Your task to perform on an android device: turn on javascript in the chrome app Image 0: 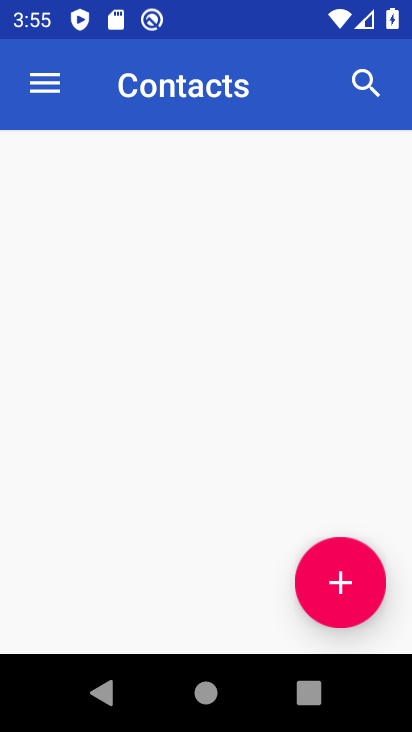
Step 0: drag from (342, 482) to (235, 66)
Your task to perform on an android device: turn on javascript in the chrome app Image 1: 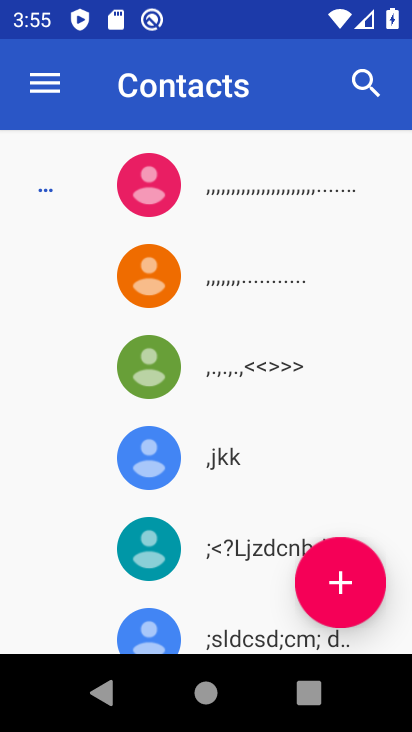
Step 1: press back button
Your task to perform on an android device: turn on javascript in the chrome app Image 2: 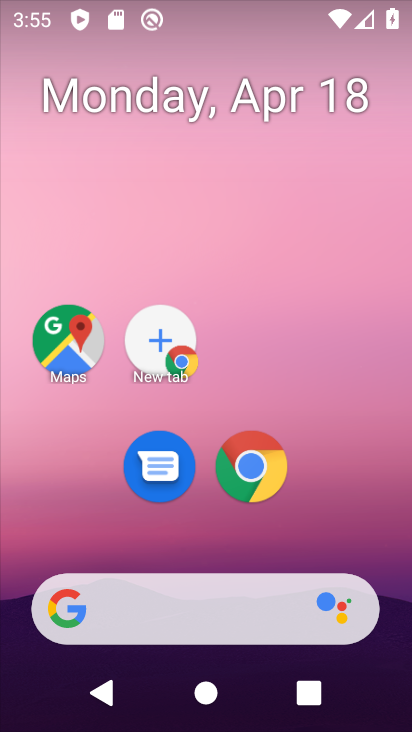
Step 2: drag from (377, 536) to (297, 97)
Your task to perform on an android device: turn on javascript in the chrome app Image 3: 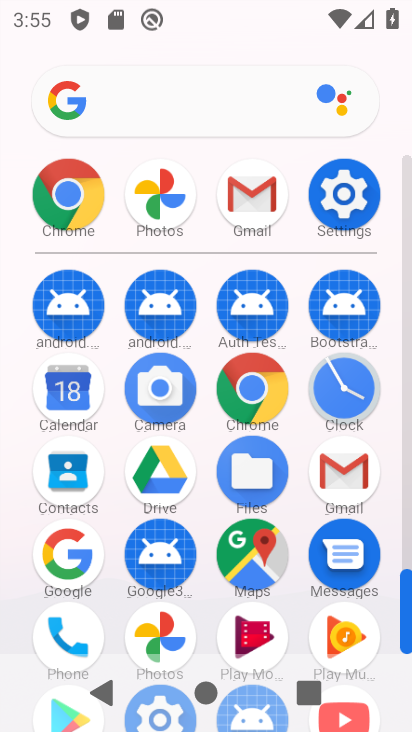
Step 3: drag from (17, 527) to (3, 261)
Your task to perform on an android device: turn on javascript in the chrome app Image 4: 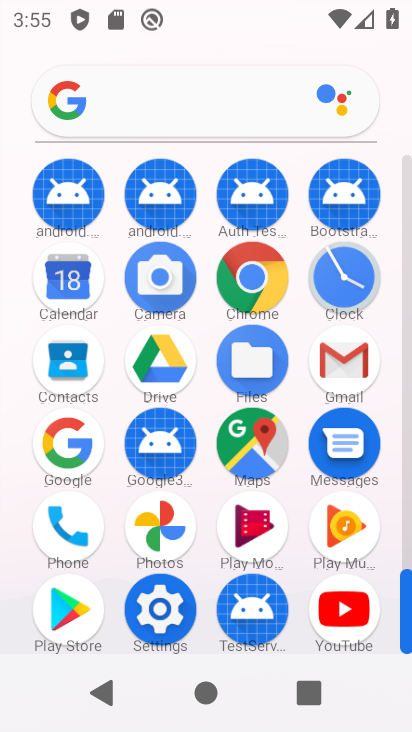
Step 4: click (244, 273)
Your task to perform on an android device: turn on javascript in the chrome app Image 5: 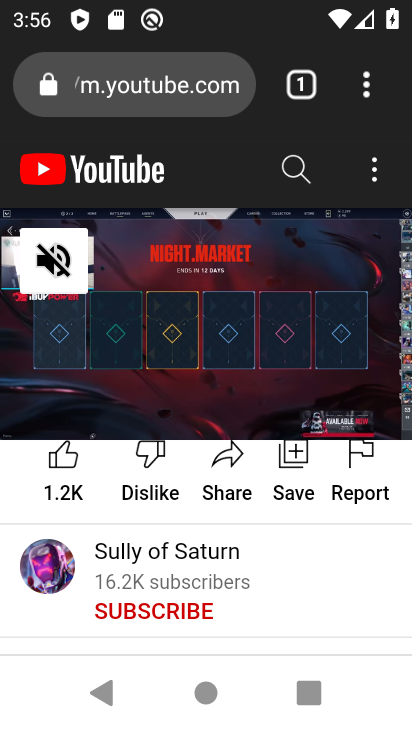
Step 5: drag from (367, 83) to (255, 522)
Your task to perform on an android device: turn on javascript in the chrome app Image 6: 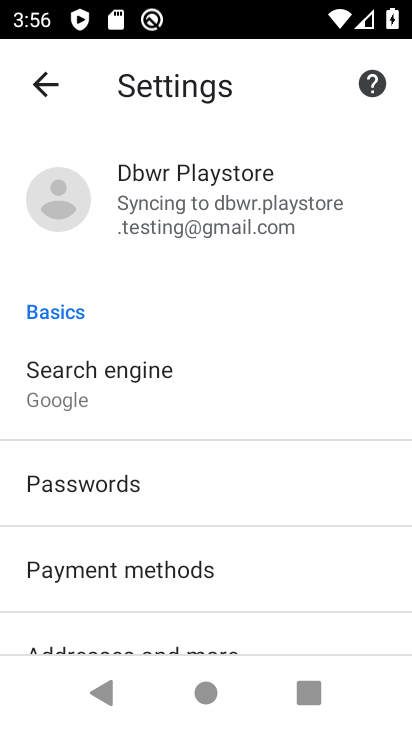
Step 6: drag from (229, 528) to (225, 219)
Your task to perform on an android device: turn on javascript in the chrome app Image 7: 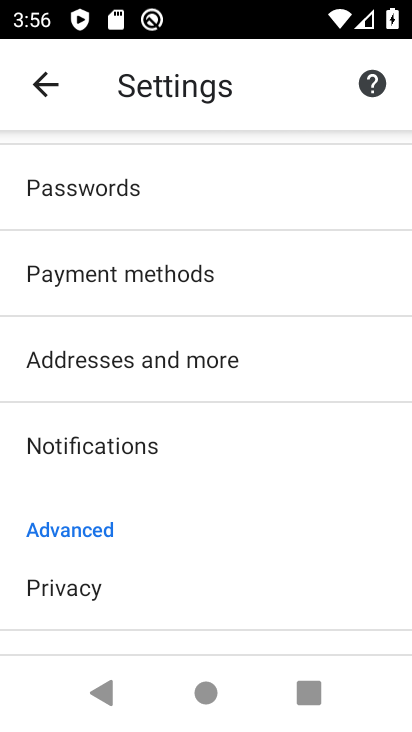
Step 7: drag from (235, 473) to (232, 150)
Your task to perform on an android device: turn on javascript in the chrome app Image 8: 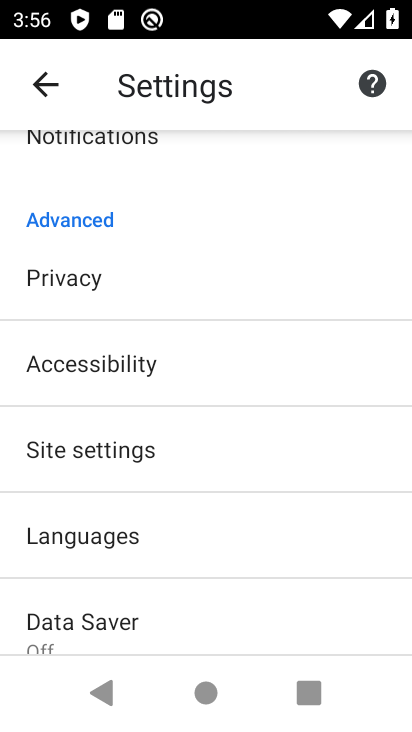
Step 8: drag from (272, 557) to (256, 207)
Your task to perform on an android device: turn on javascript in the chrome app Image 9: 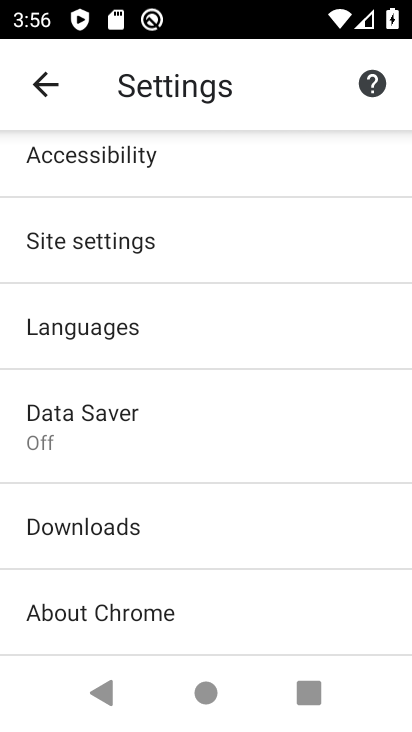
Step 9: drag from (220, 554) to (203, 159)
Your task to perform on an android device: turn on javascript in the chrome app Image 10: 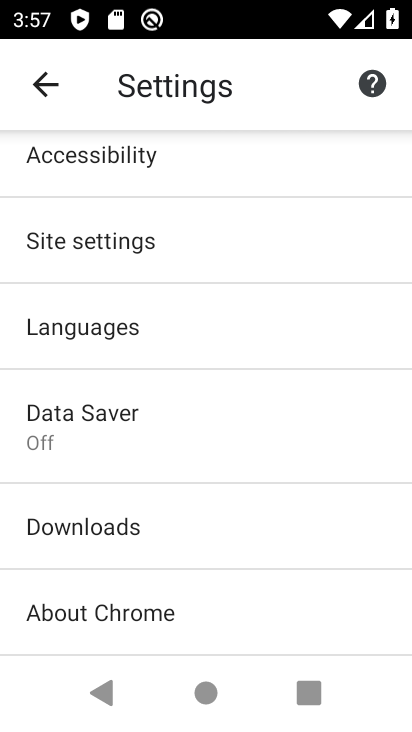
Step 10: click (161, 244)
Your task to perform on an android device: turn on javascript in the chrome app Image 11: 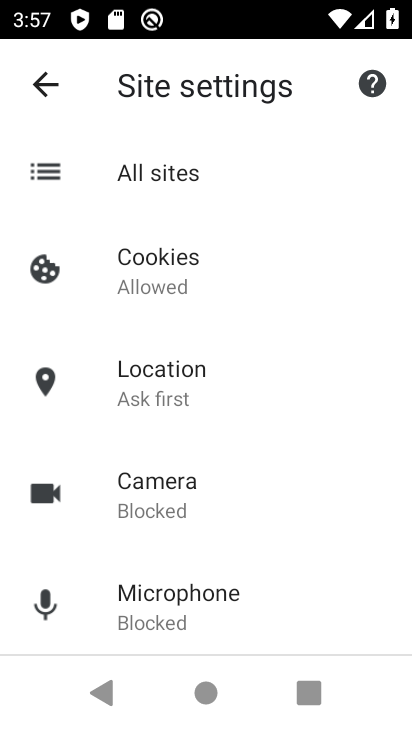
Step 11: drag from (219, 518) to (217, 143)
Your task to perform on an android device: turn on javascript in the chrome app Image 12: 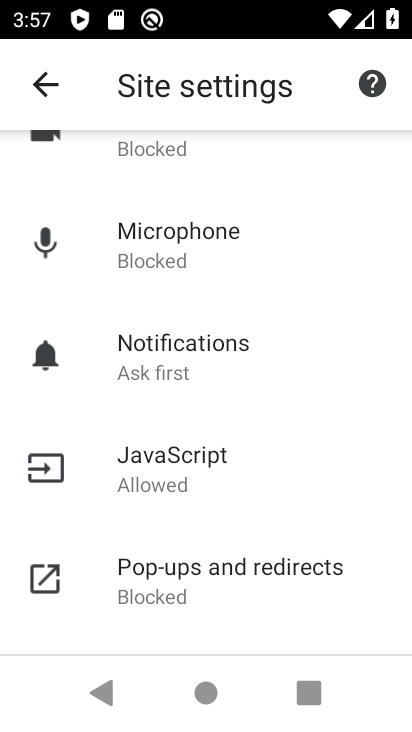
Step 12: click (207, 456)
Your task to perform on an android device: turn on javascript in the chrome app Image 13: 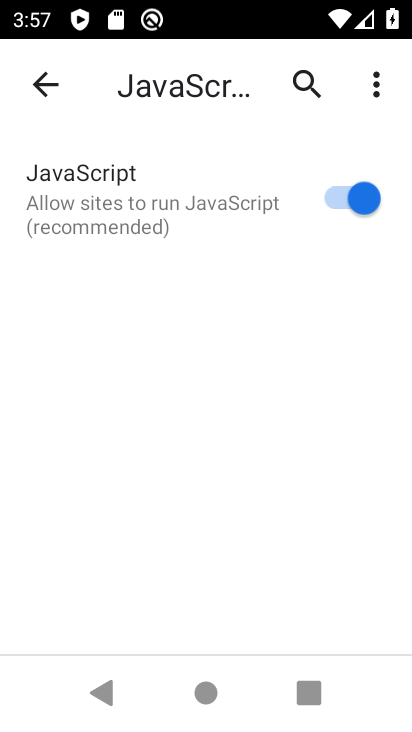
Step 13: task complete